Your task to perform on an android device: Open maps Image 0: 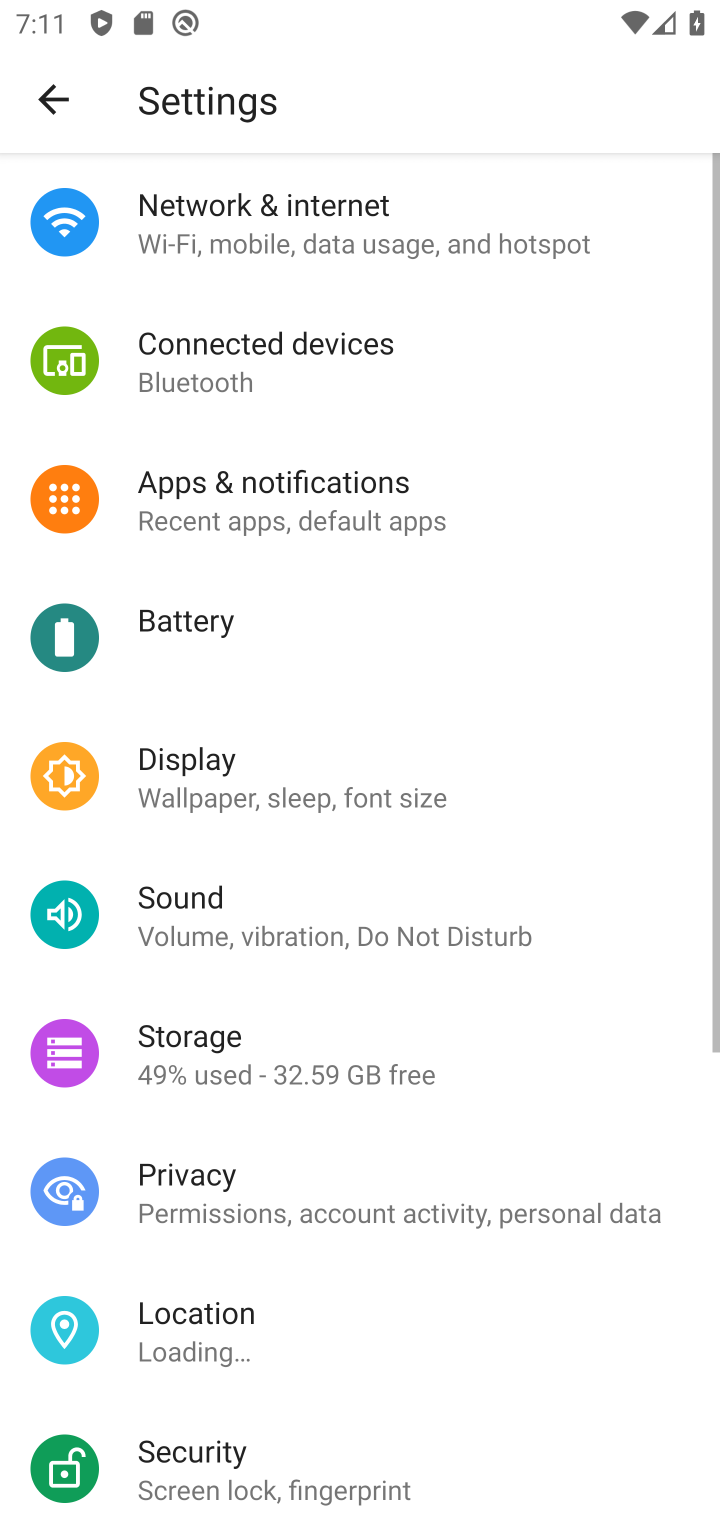
Step 0: press home button
Your task to perform on an android device: Open maps Image 1: 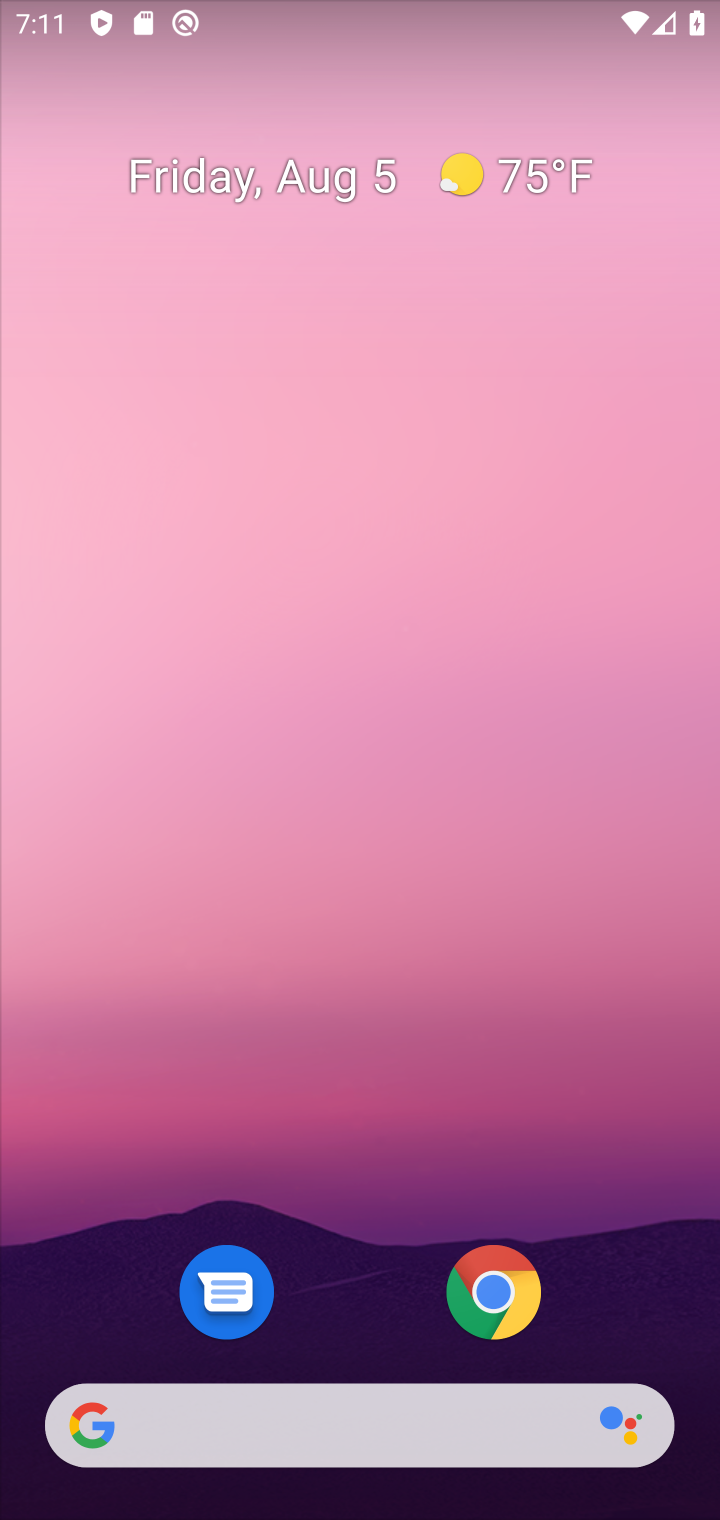
Step 1: drag from (378, 1214) to (426, 61)
Your task to perform on an android device: Open maps Image 2: 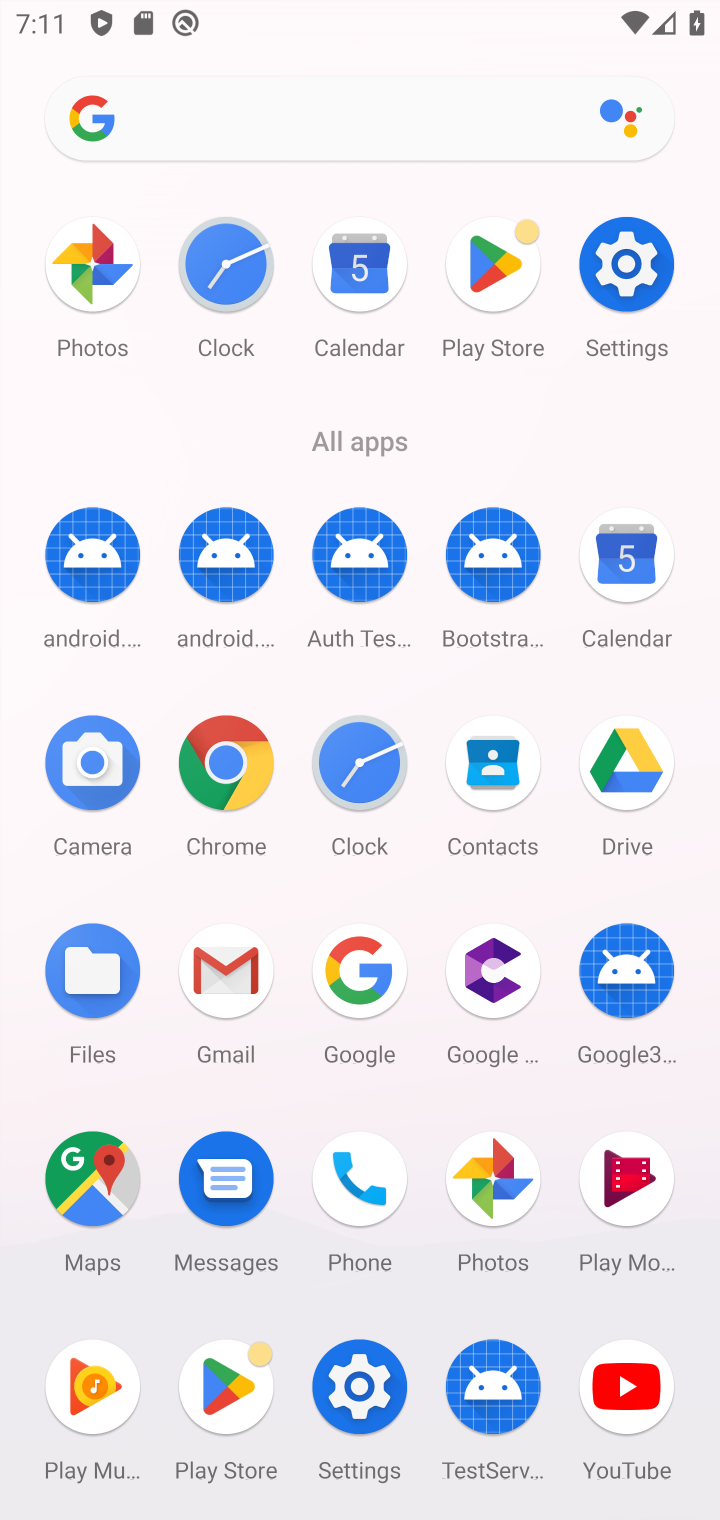
Step 2: click (98, 1165)
Your task to perform on an android device: Open maps Image 3: 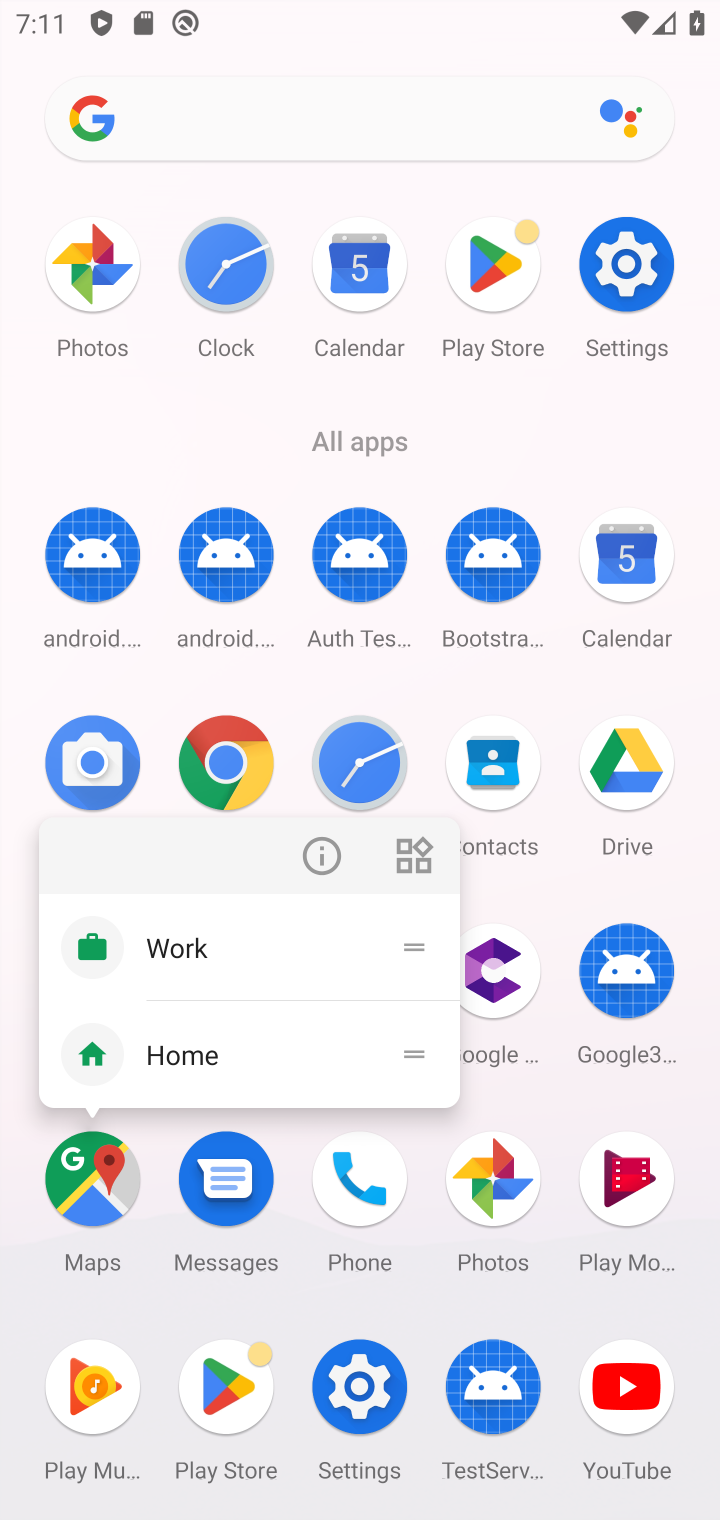
Step 3: click (98, 1162)
Your task to perform on an android device: Open maps Image 4: 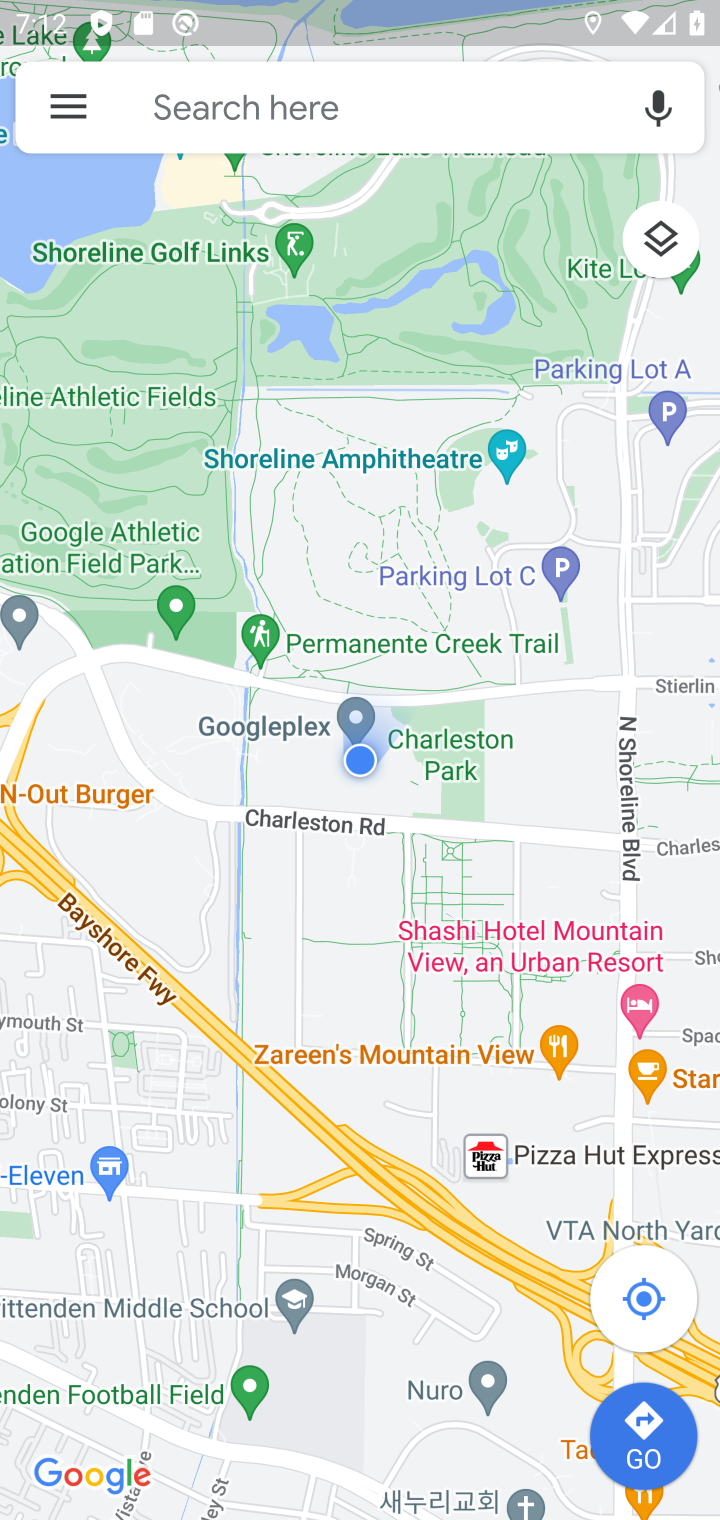
Step 4: task complete